Your task to perform on an android device: toggle notification dots Image 0: 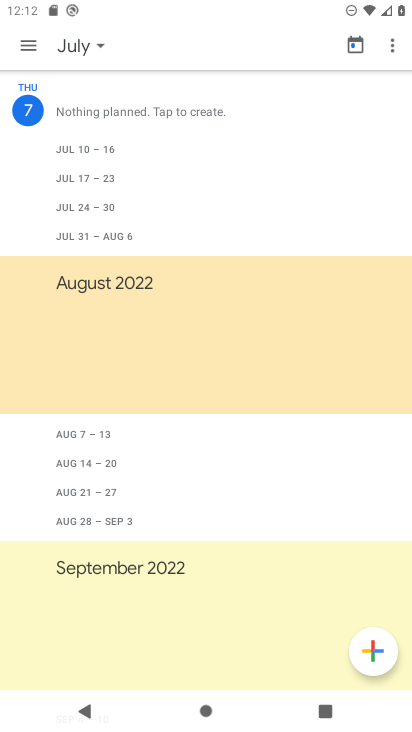
Step 0: press home button
Your task to perform on an android device: toggle notification dots Image 1: 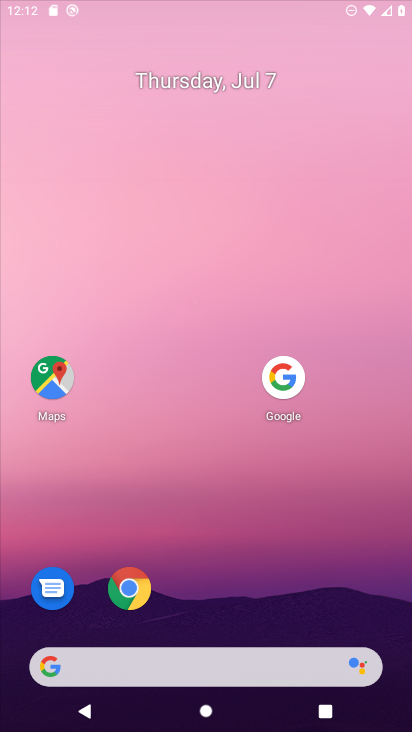
Step 1: click (205, 665)
Your task to perform on an android device: toggle notification dots Image 2: 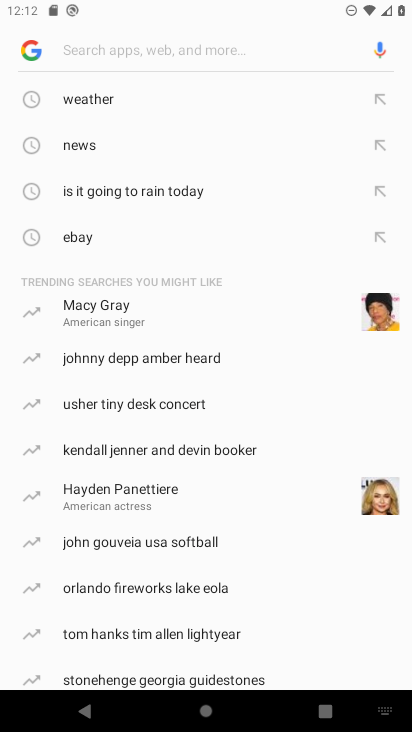
Step 2: click (98, 98)
Your task to perform on an android device: toggle notification dots Image 3: 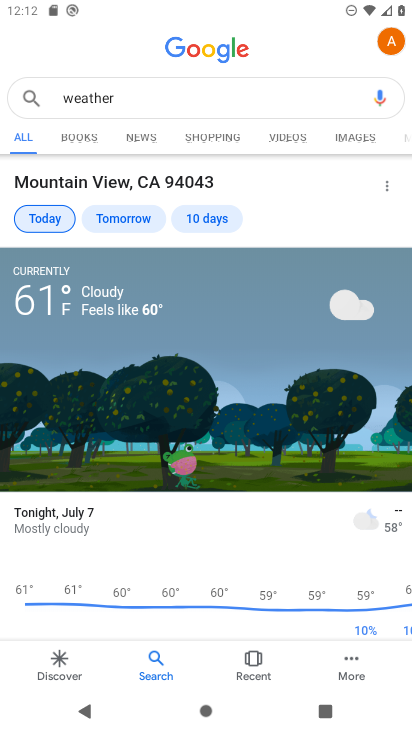
Step 3: task complete